Your task to perform on an android device: When is my next appointment? Image 0: 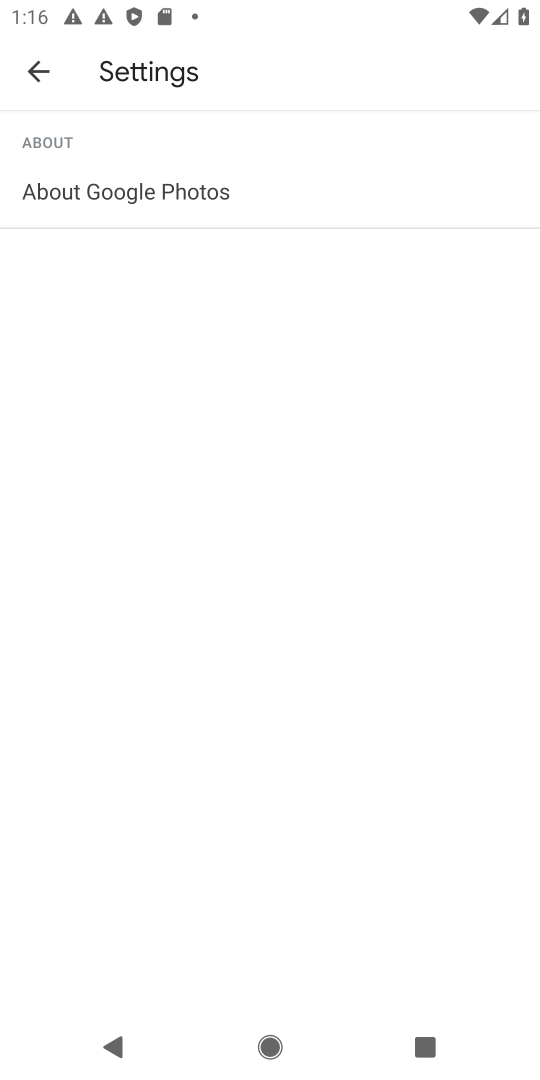
Step 0: press home button
Your task to perform on an android device: When is my next appointment? Image 1: 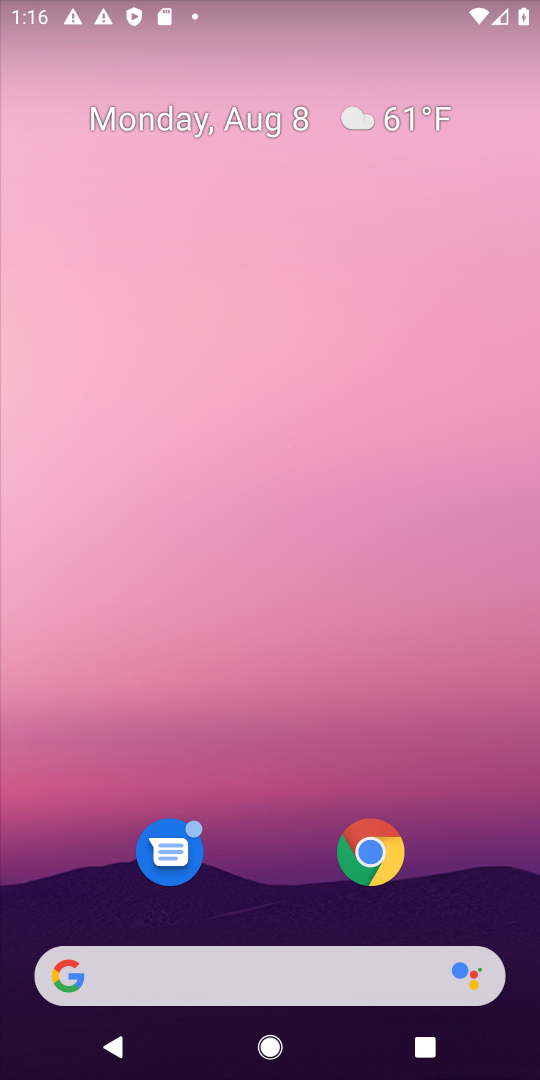
Step 1: drag from (491, 853) to (335, 87)
Your task to perform on an android device: When is my next appointment? Image 2: 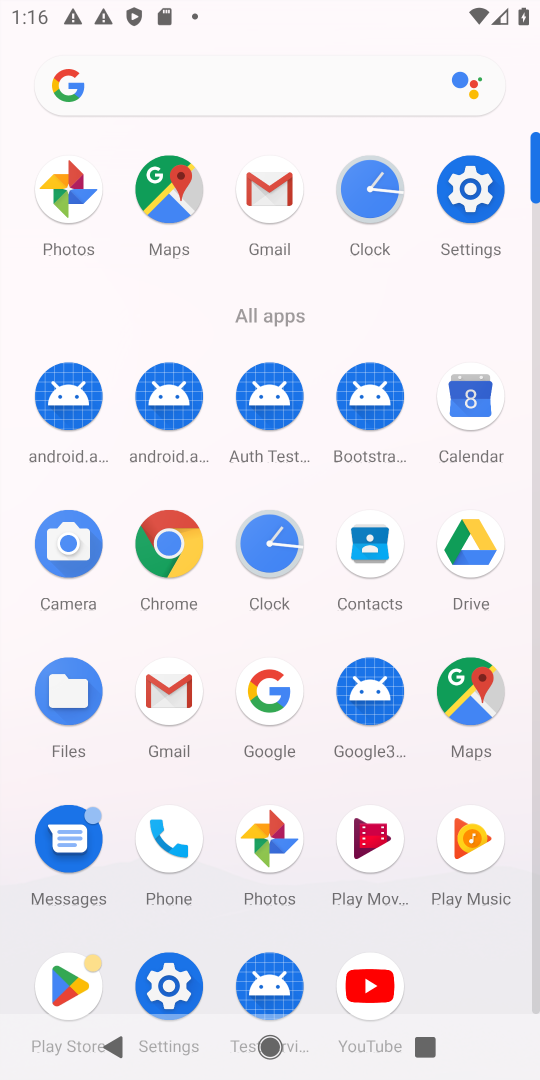
Step 2: click (448, 419)
Your task to perform on an android device: When is my next appointment? Image 3: 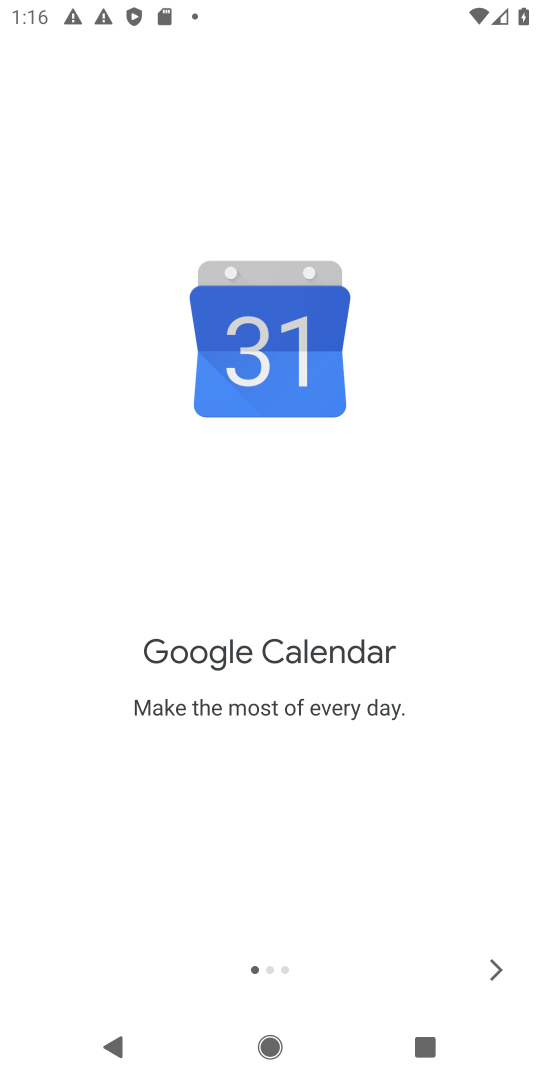
Step 3: click (497, 986)
Your task to perform on an android device: When is my next appointment? Image 4: 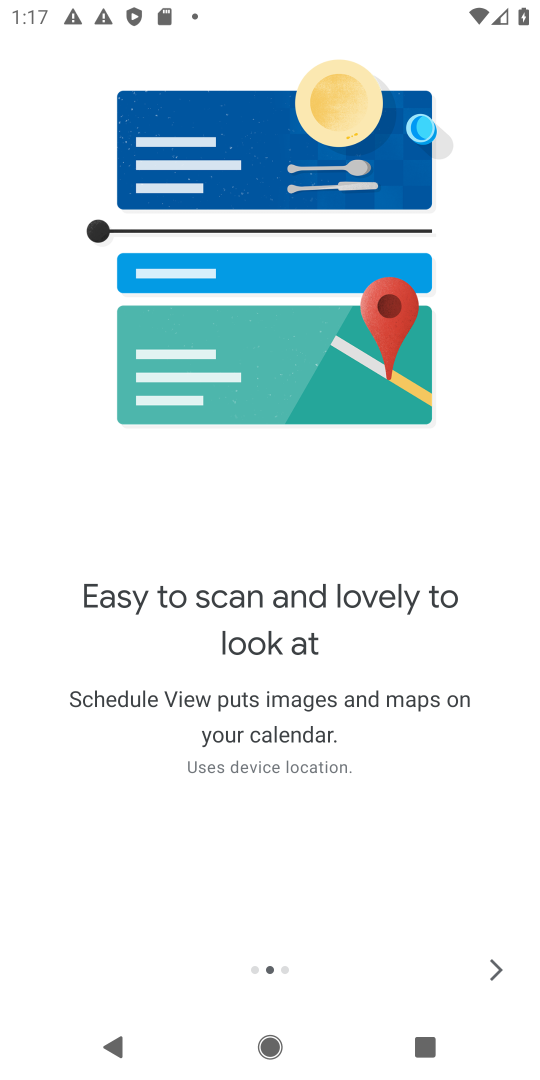
Step 4: click (497, 986)
Your task to perform on an android device: When is my next appointment? Image 5: 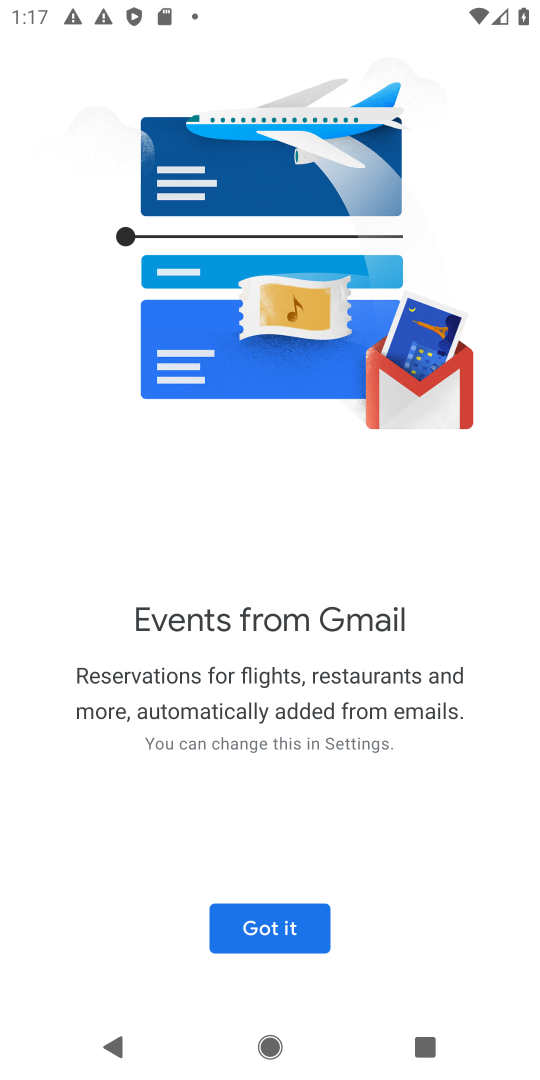
Step 5: click (245, 931)
Your task to perform on an android device: When is my next appointment? Image 6: 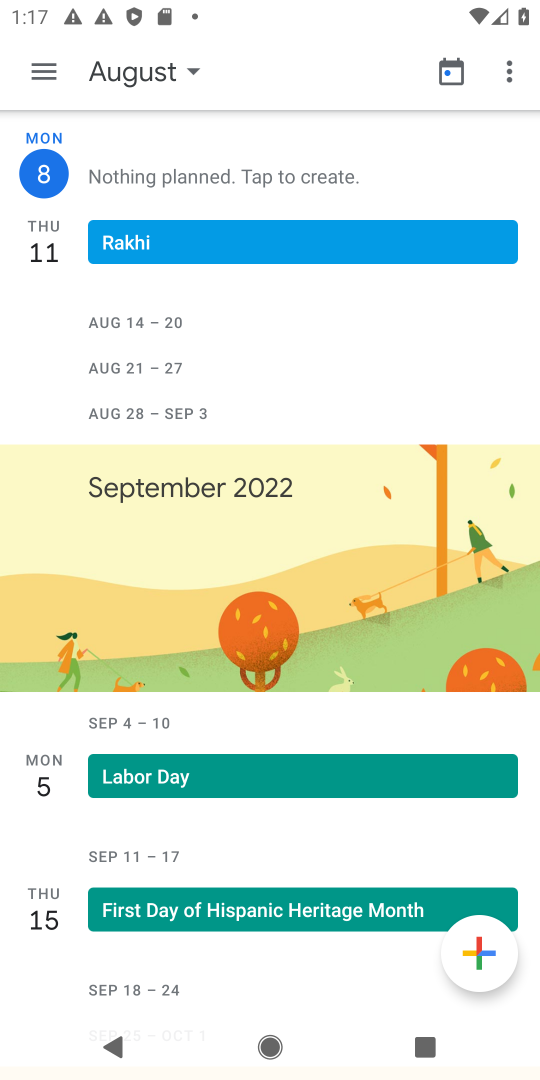
Step 6: task complete